Your task to perform on an android device: allow notifications from all sites in the chrome app Image 0: 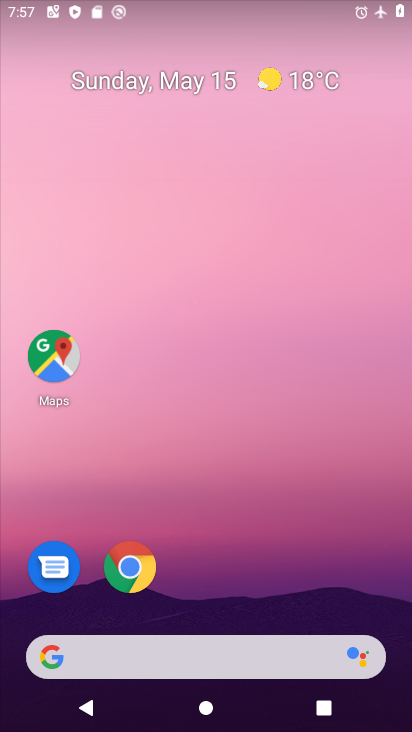
Step 0: click (130, 594)
Your task to perform on an android device: allow notifications from all sites in the chrome app Image 1: 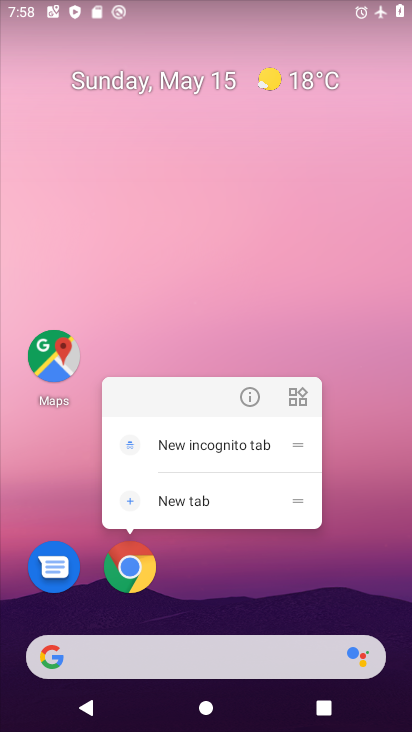
Step 1: click (257, 397)
Your task to perform on an android device: allow notifications from all sites in the chrome app Image 2: 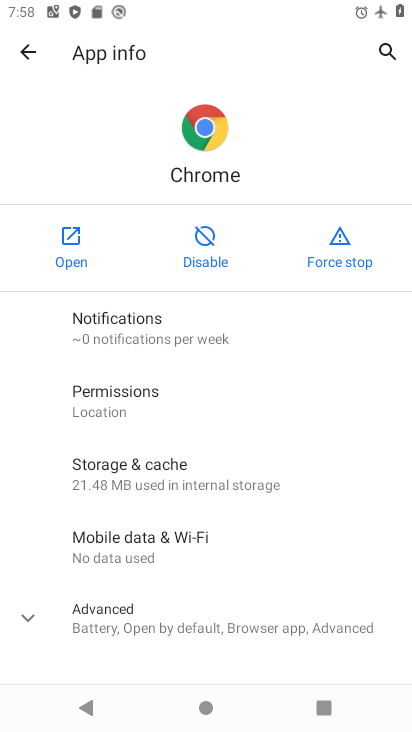
Step 2: click (224, 336)
Your task to perform on an android device: allow notifications from all sites in the chrome app Image 3: 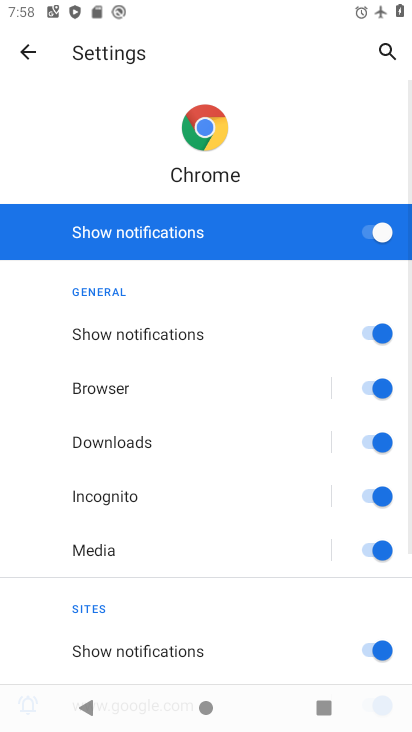
Step 3: task complete